Your task to perform on an android device: star an email in the gmail app Image 0: 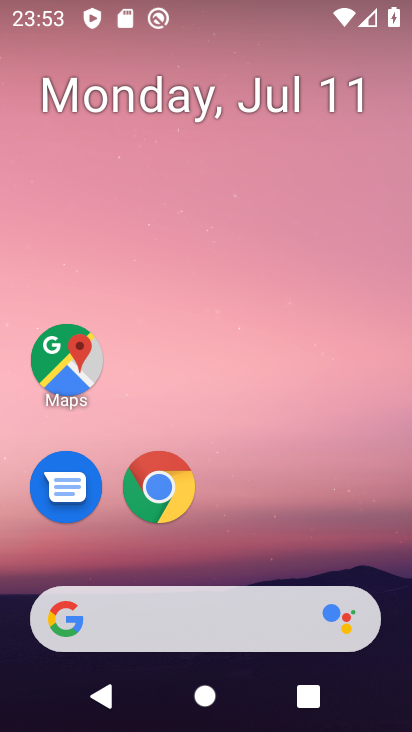
Step 0: drag from (383, 524) to (321, 118)
Your task to perform on an android device: star an email in the gmail app Image 1: 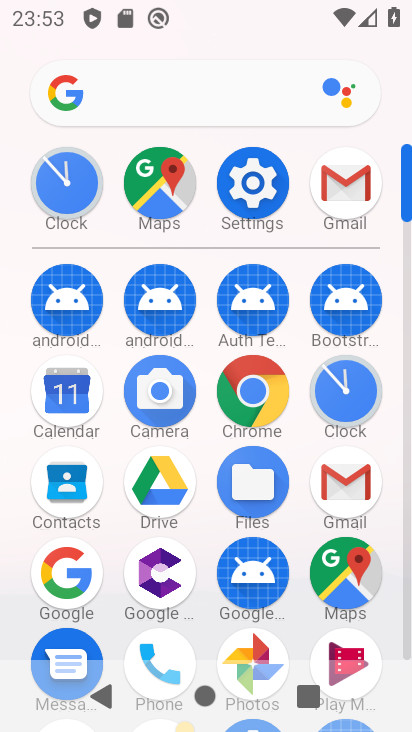
Step 1: click (361, 475)
Your task to perform on an android device: star an email in the gmail app Image 2: 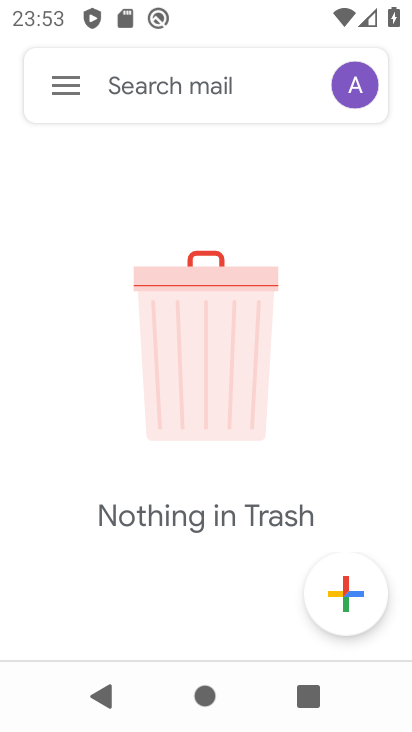
Step 2: click (66, 90)
Your task to perform on an android device: star an email in the gmail app Image 3: 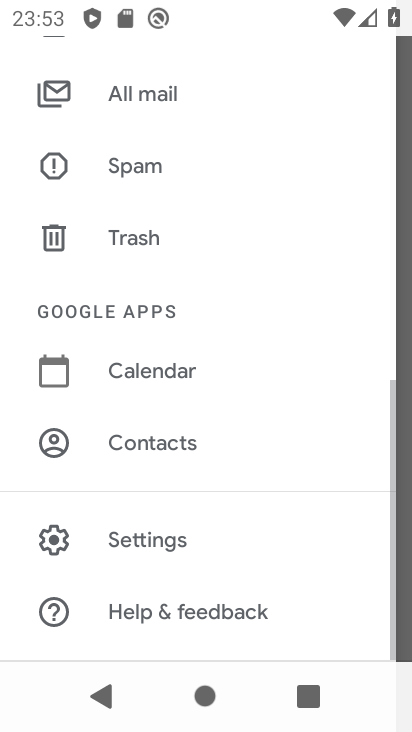
Step 3: drag from (236, 236) to (238, 303)
Your task to perform on an android device: star an email in the gmail app Image 4: 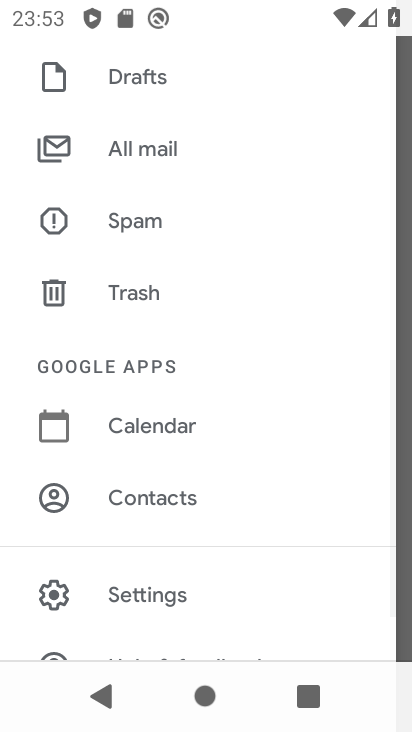
Step 4: drag from (259, 198) to (259, 276)
Your task to perform on an android device: star an email in the gmail app Image 5: 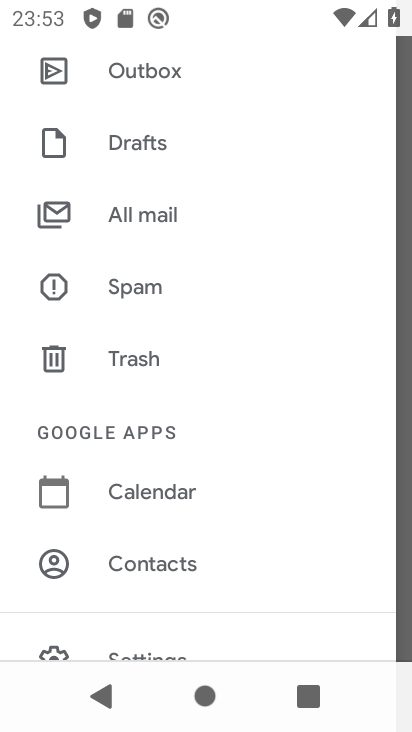
Step 5: drag from (263, 191) to (268, 290)
Your task to perform on an android device: star an email in the gmail app Image 6: 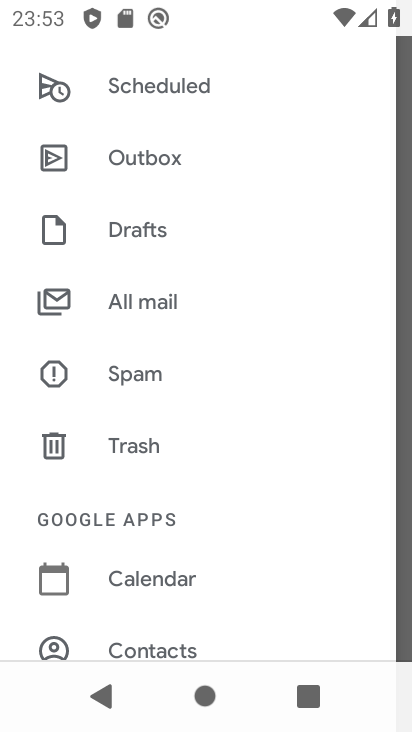
Step 6: drag from (267, 194) to (268, 291)
Your task to perform on an android device: star an email in the gmail app Image 7: 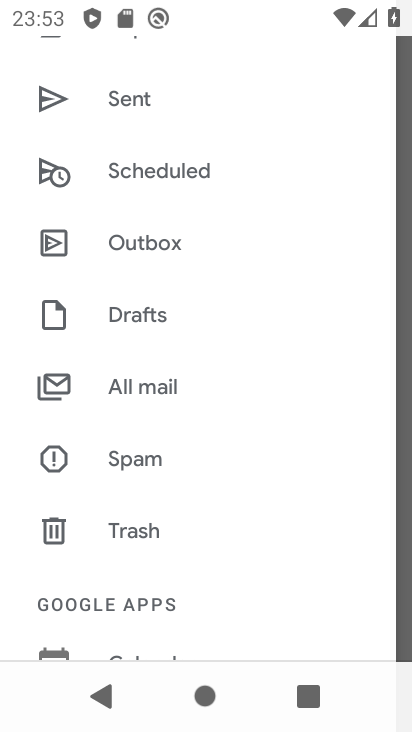
Step 7: drag from (268, 205) to (271, 291)
Your task to perform on an android device: star an email in the gmail app Image 8: 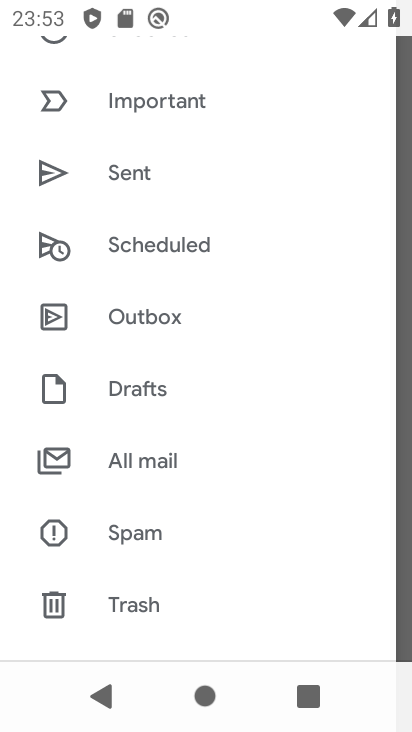
Step 8: drag from (273, 213) to (274, 320)
Your task to perform on an android device: star an email in the gmail app Image 9: 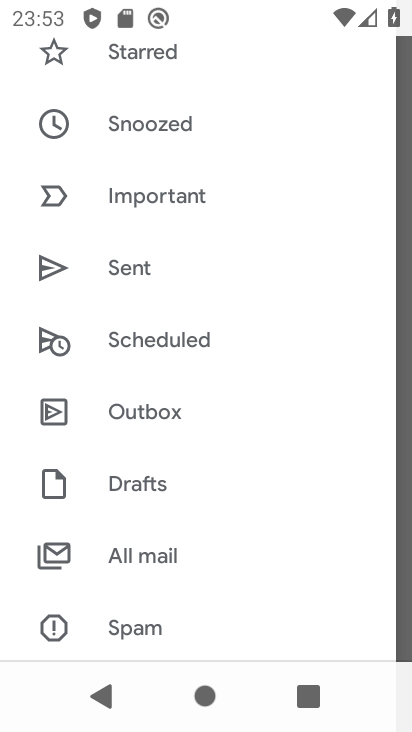
Step 9: drag from (274, 195) to (277, 299)
Your task to perform on an android device: star an email in the gmail app Image 10: 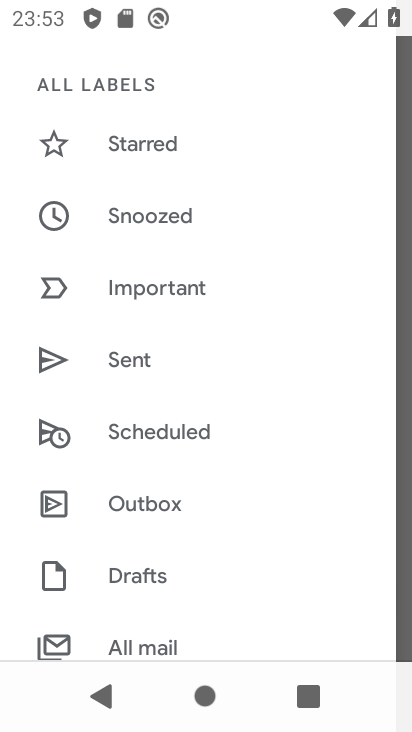
Step 10: drag from (269, 151) to (271, 279)
Your task to perform on an android device: star an email in the gmail app Image 11: 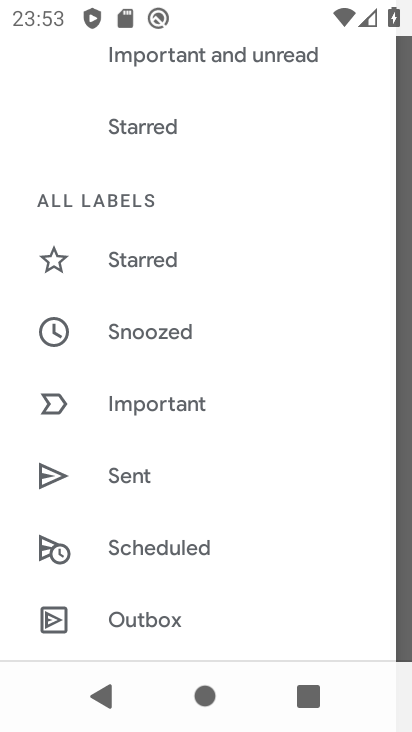
Step 11: drag from (268, 145) to (273, 336)
Your task to perform on an android device: star an email in the gmail app Image 12: 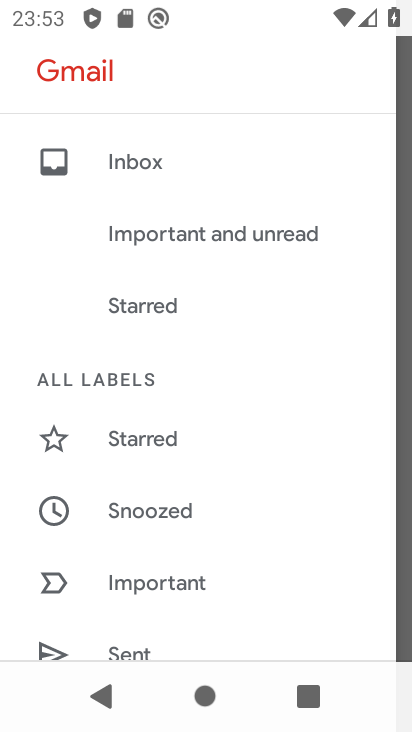
Step 12: click (194, 176)
Your task to perform on an android device: star an email in the gmail app Image 13: 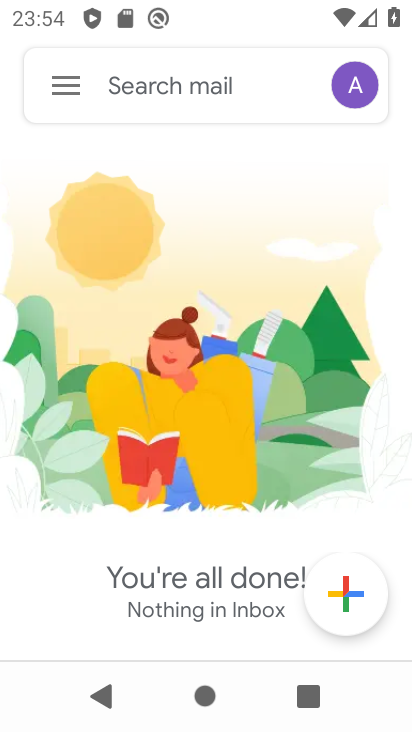
Step 13: task complete